Your task to perform on an android device: How big is the universe? Image 0: 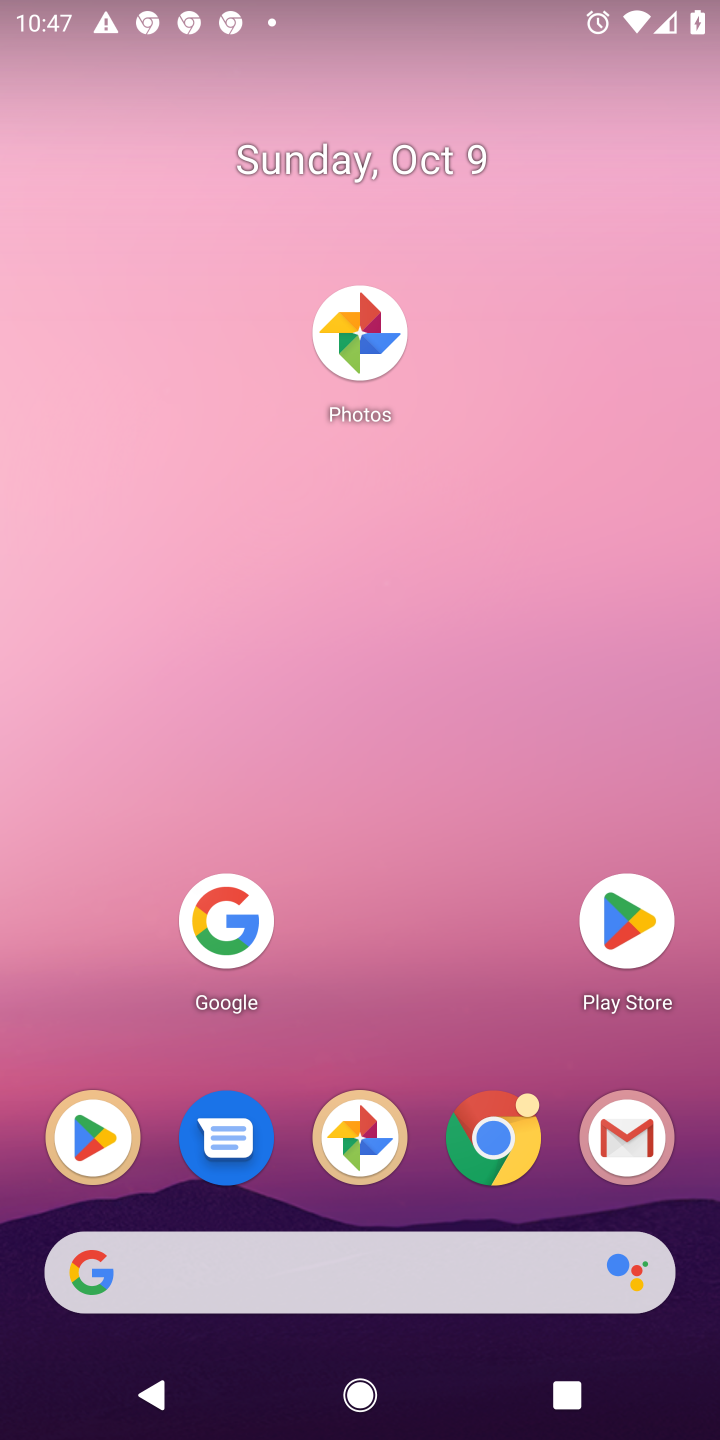
Step 0: click (244, 906)
Your task to perform on an android device: How big is the universe? Image 1: 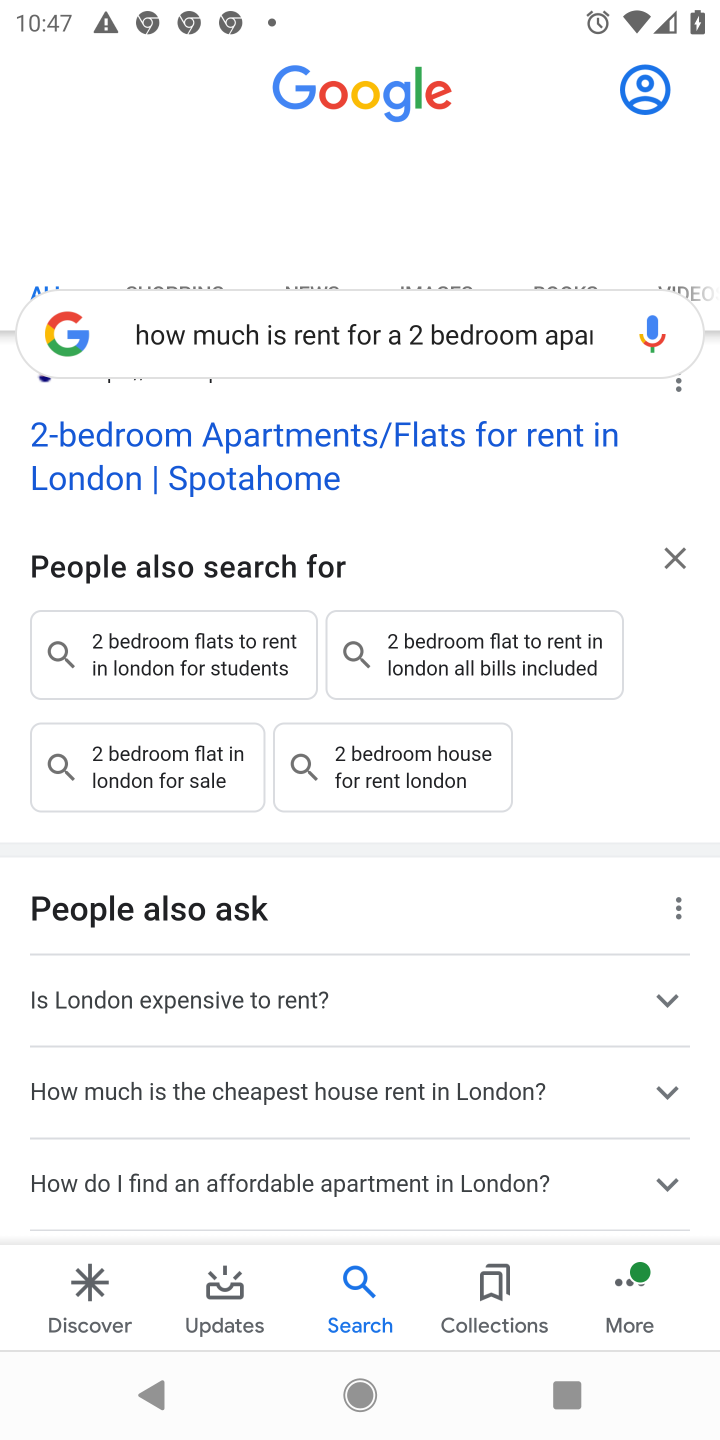
Step 1: click (399, 317)
Your task to perform on an android device: How big is the universe? Image 2: 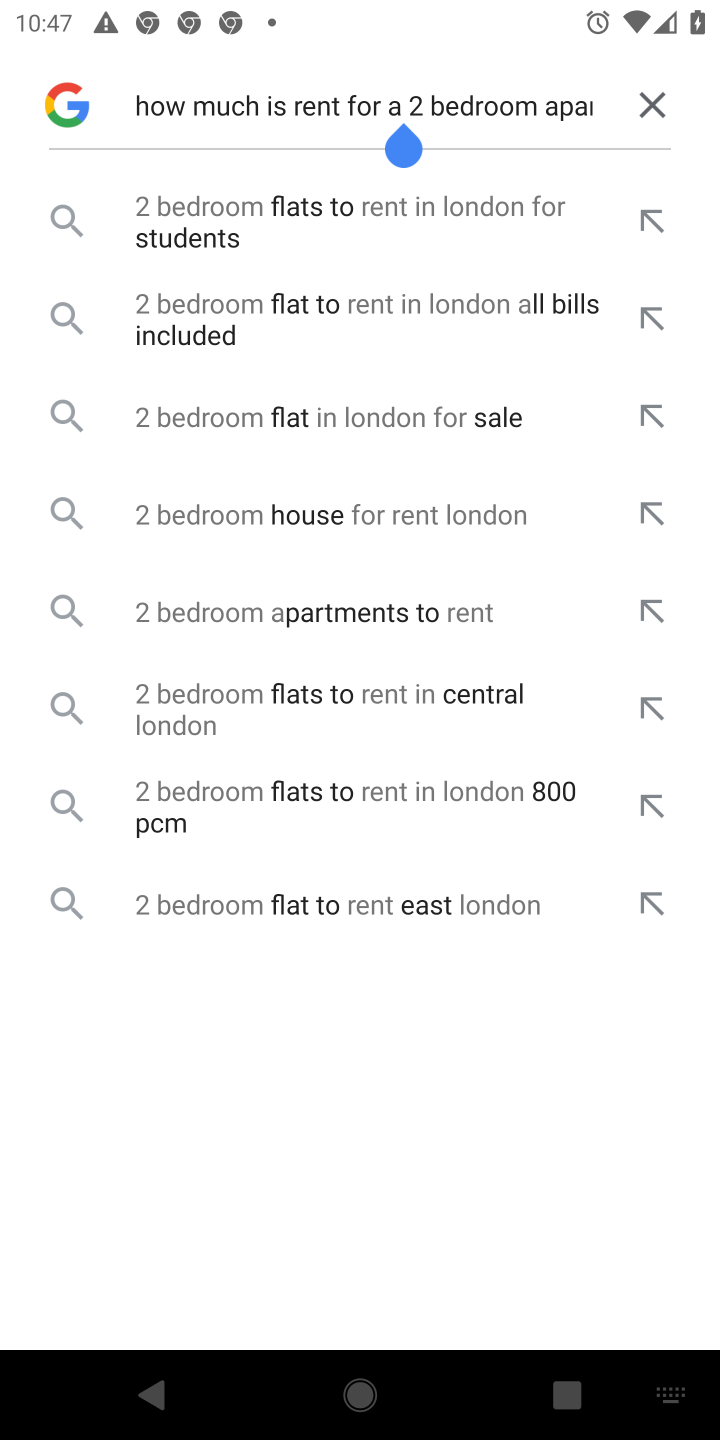
Step 2: click (644, 86)
Your task to perform on an android device: How big is the universe? Image 3: 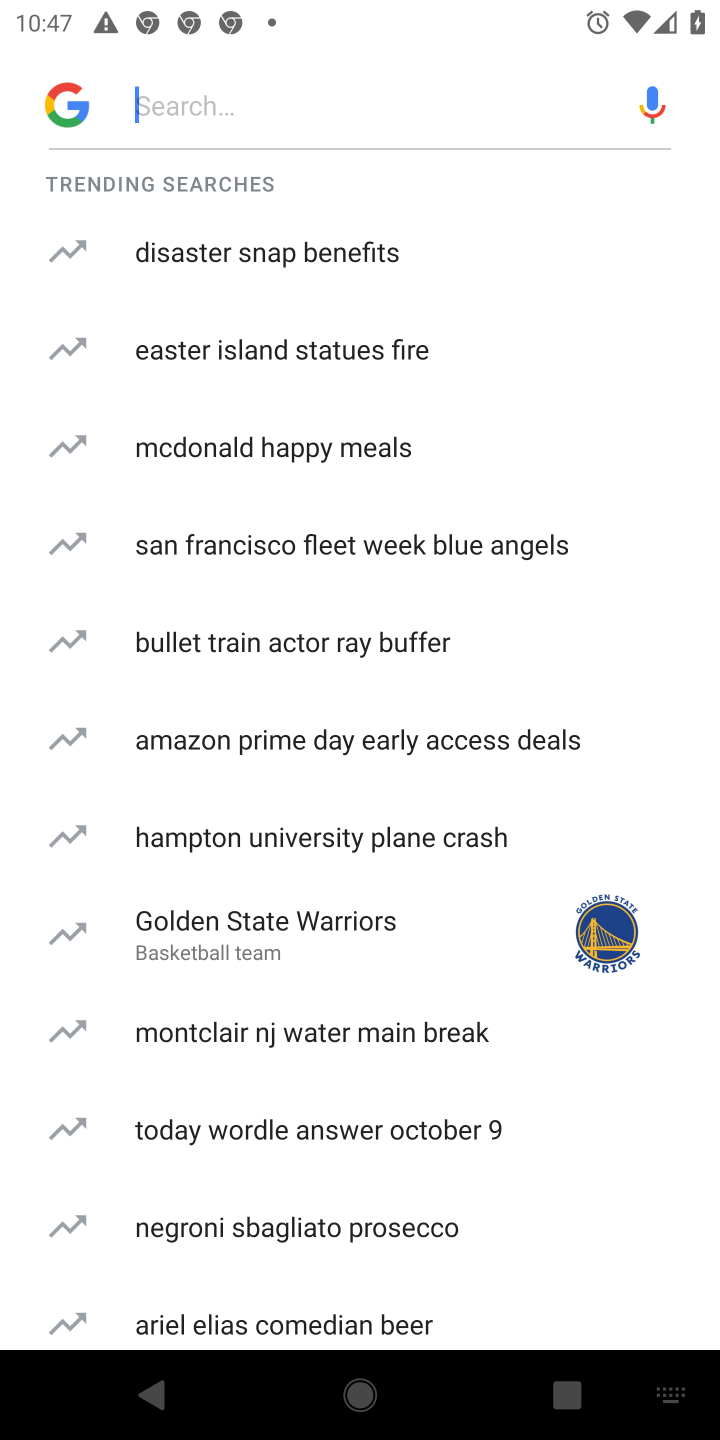
Step 3: click (426, 81)
Your task to perform on an android device: How big is the universe? Image 4: 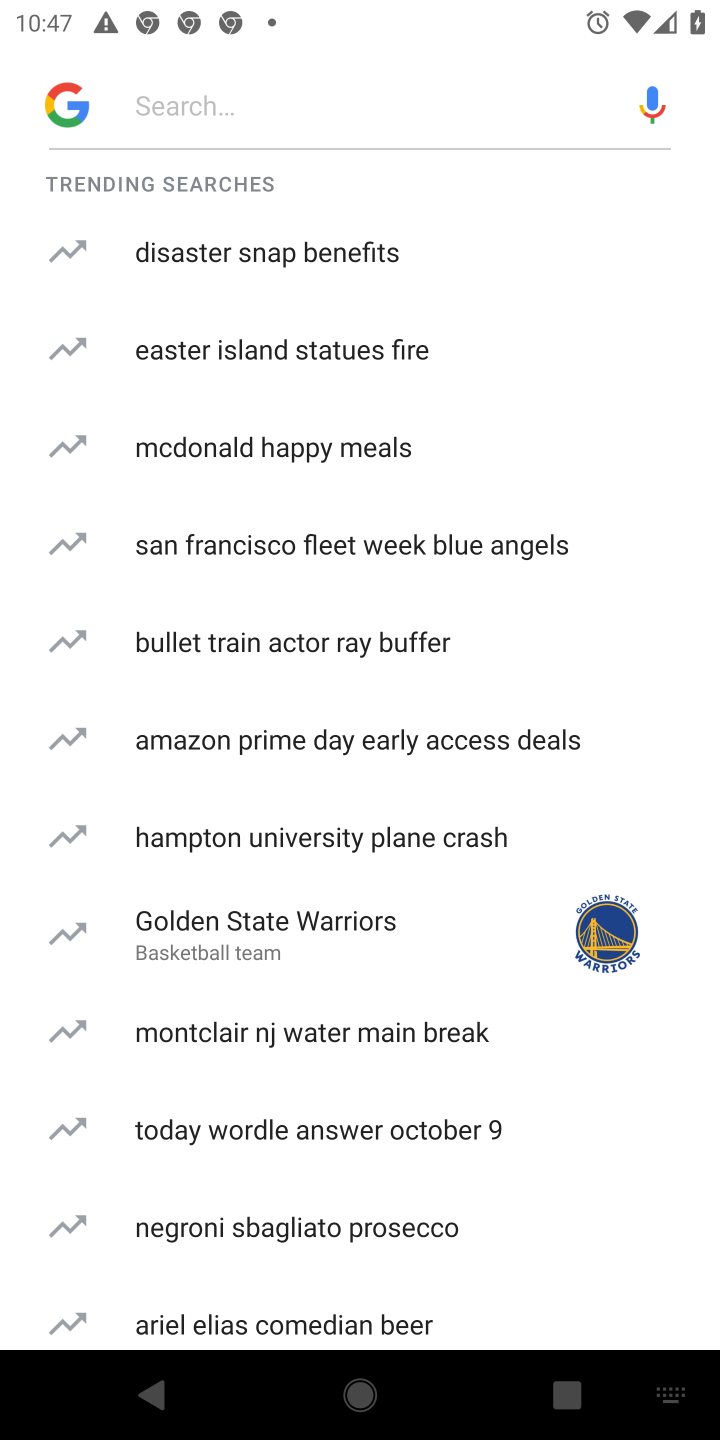
Step 4: type "How big is the universe? "
Your task to perform on an android device: How big is the universe? Image 5: 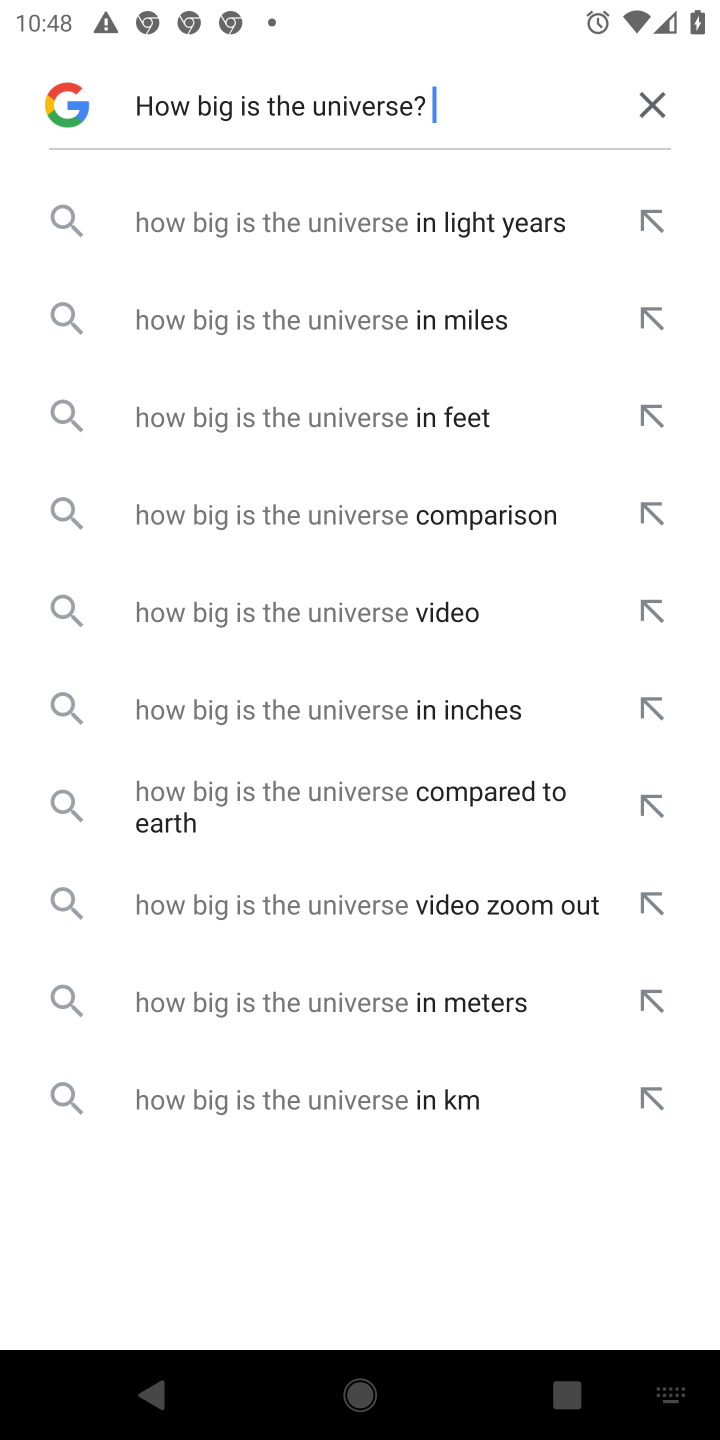
Step 5: click (419, 221)
Your task to perform on an android device: How big is the universe? Image 6: 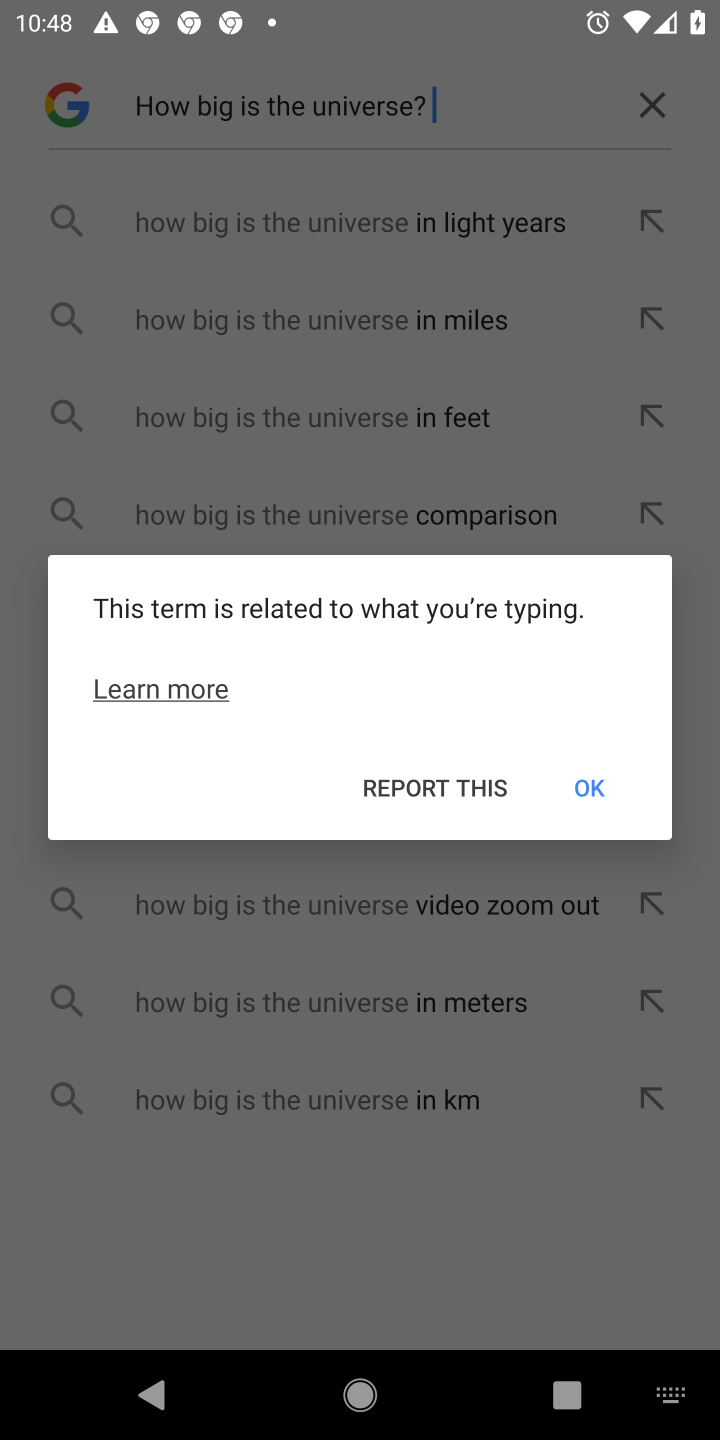
Step 6: click (562, 794)
Your task to perform on an android device: How big is the universe? Image 7: 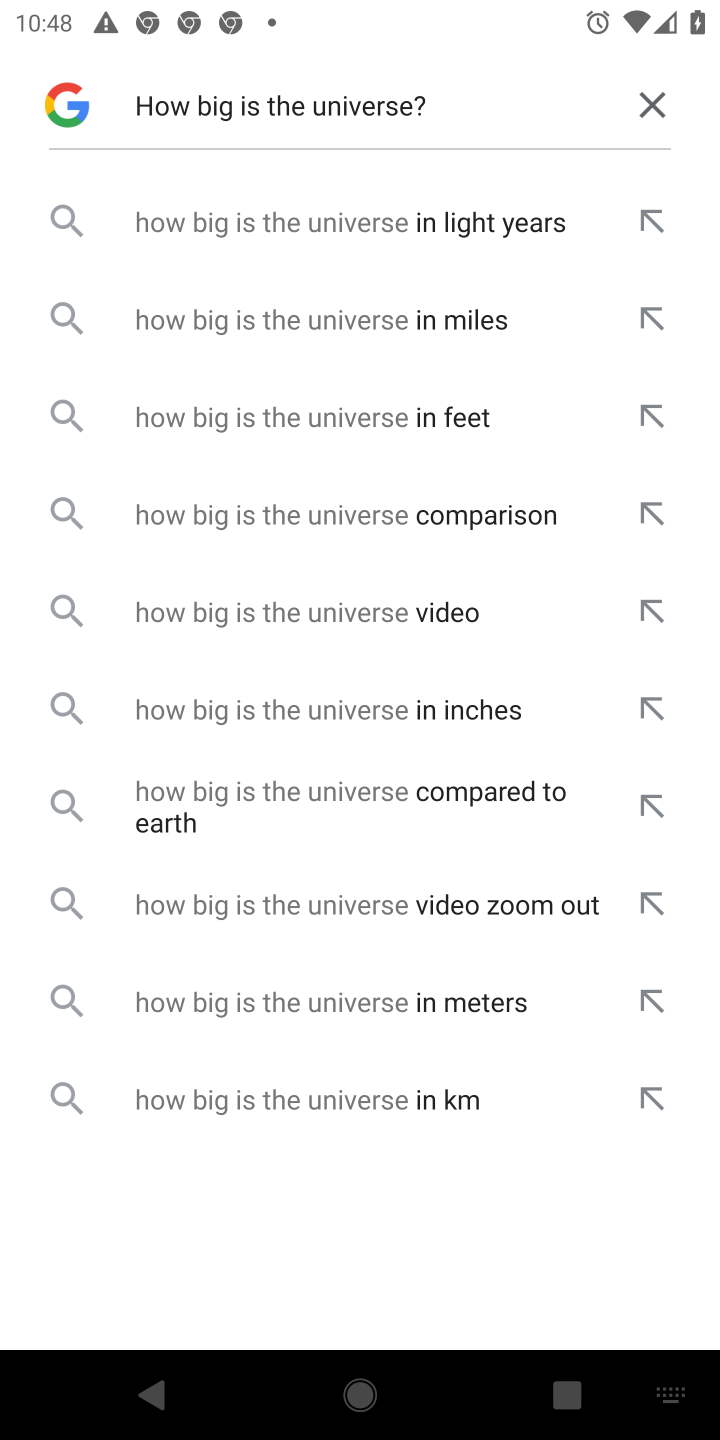
Step 7: click (342, 200)
Your task to perform on an android device: How big is the universe? Image 8: 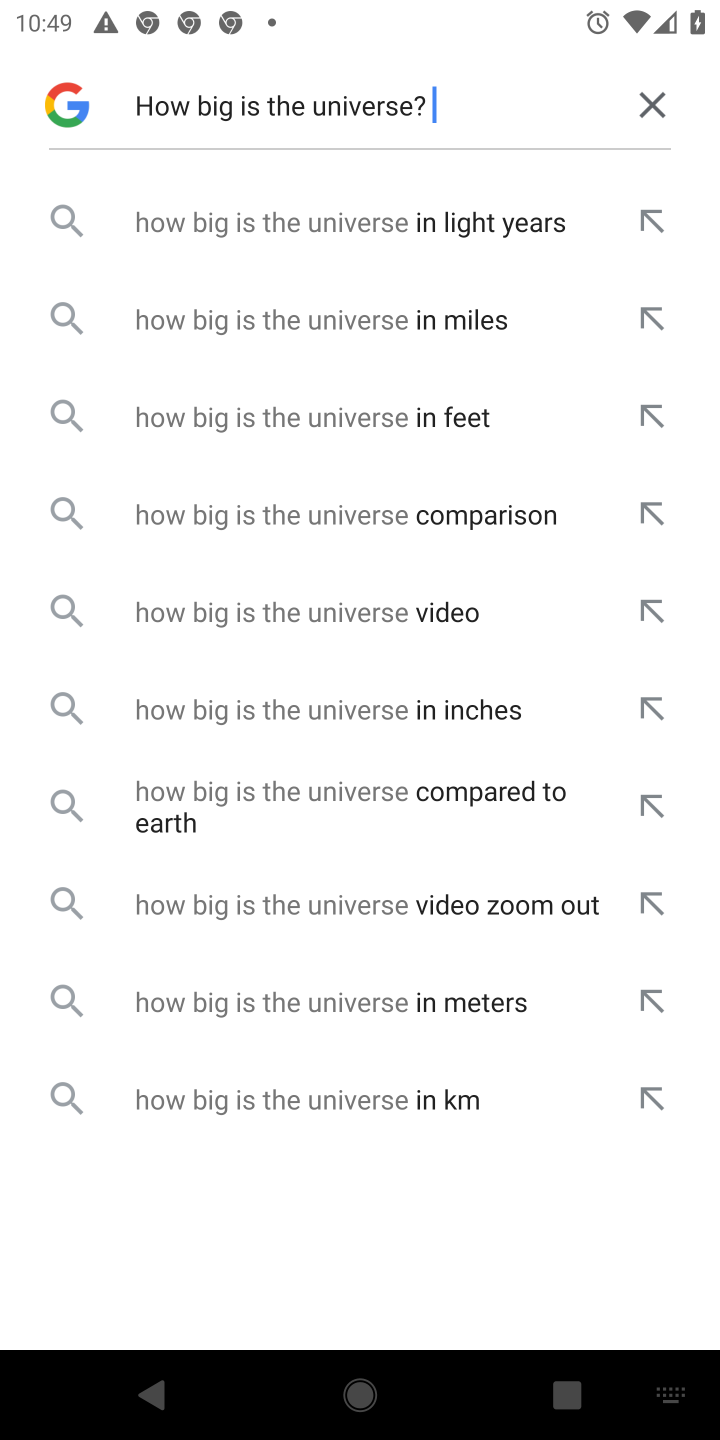
Step 8: click (310, 203)
Your task to perform on an android device: How big is the universe? Image 9: 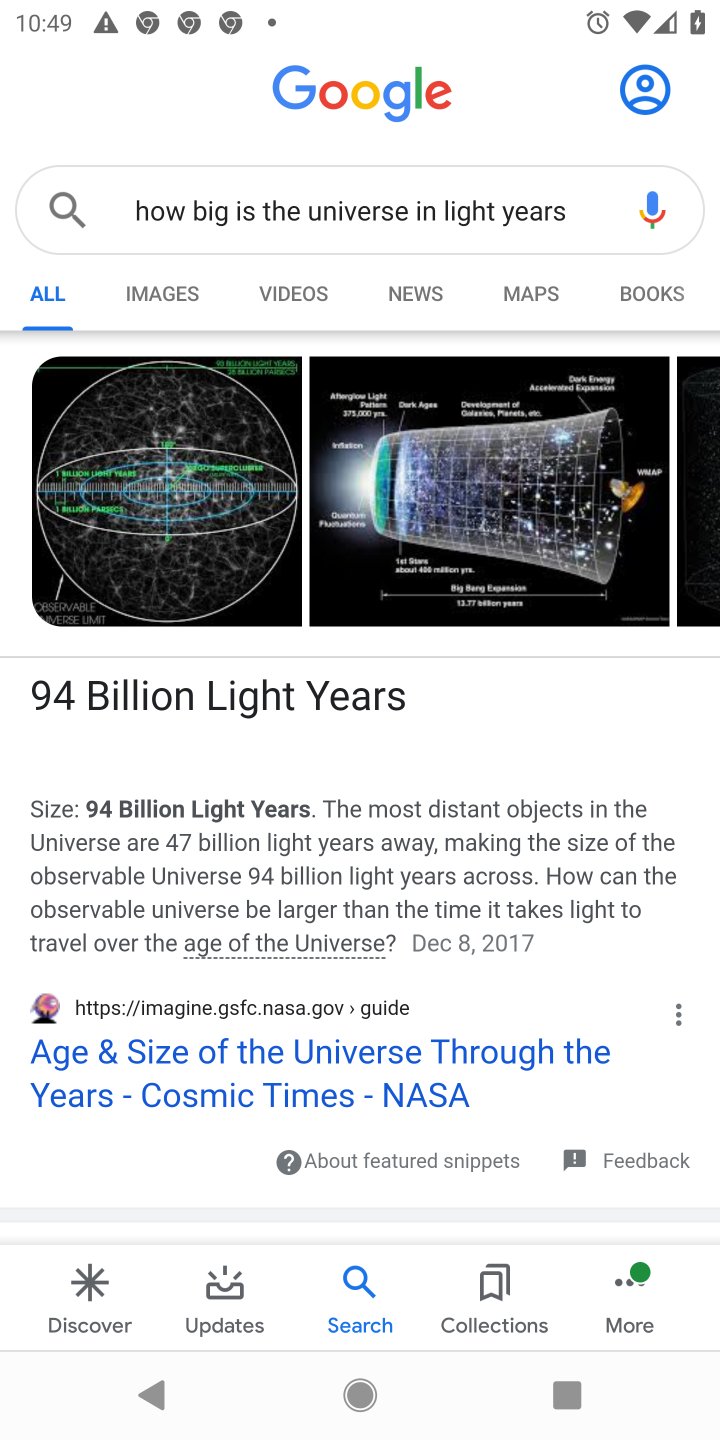
Step 9: click (310, 203)
Your task to perform on an android device: How big is the universe? Image 10: 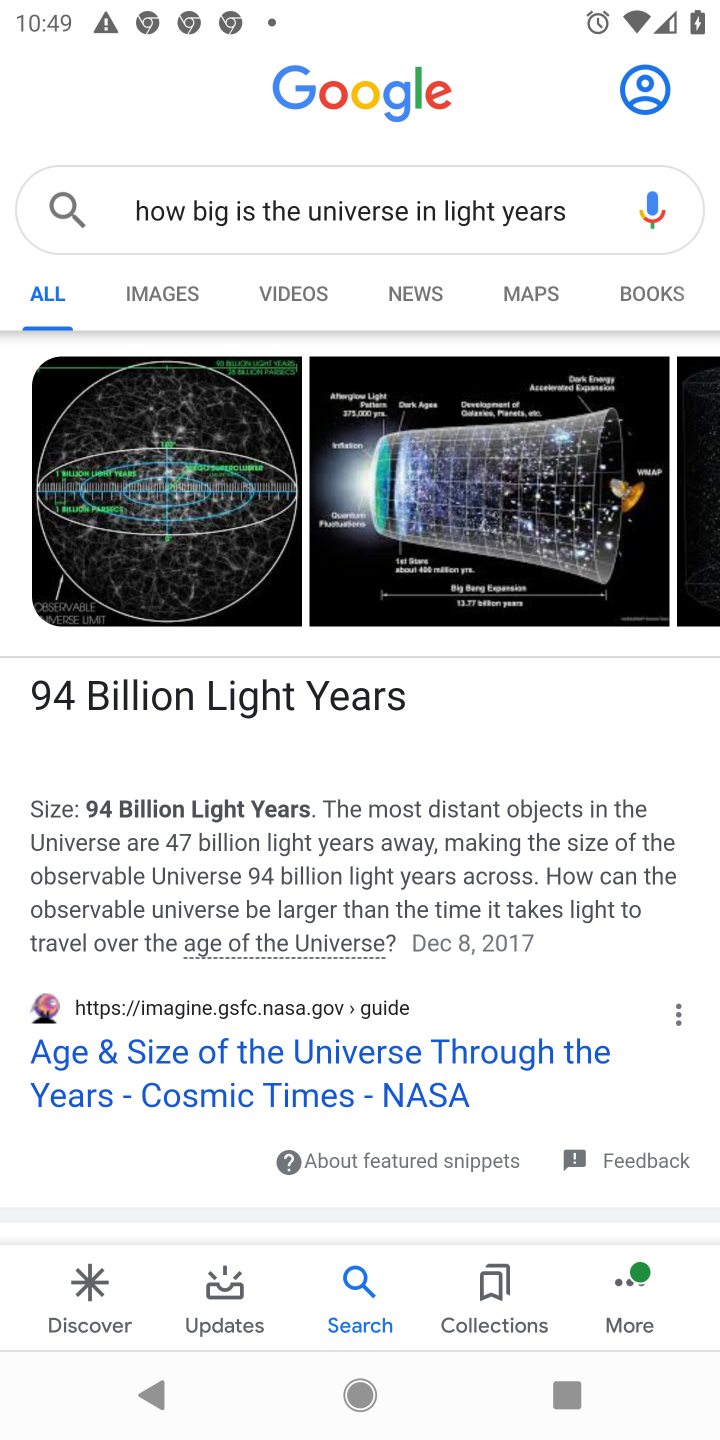
Step 10: click (310, 203)
Your task to perform on an android device: How big is the universe? Image 11: 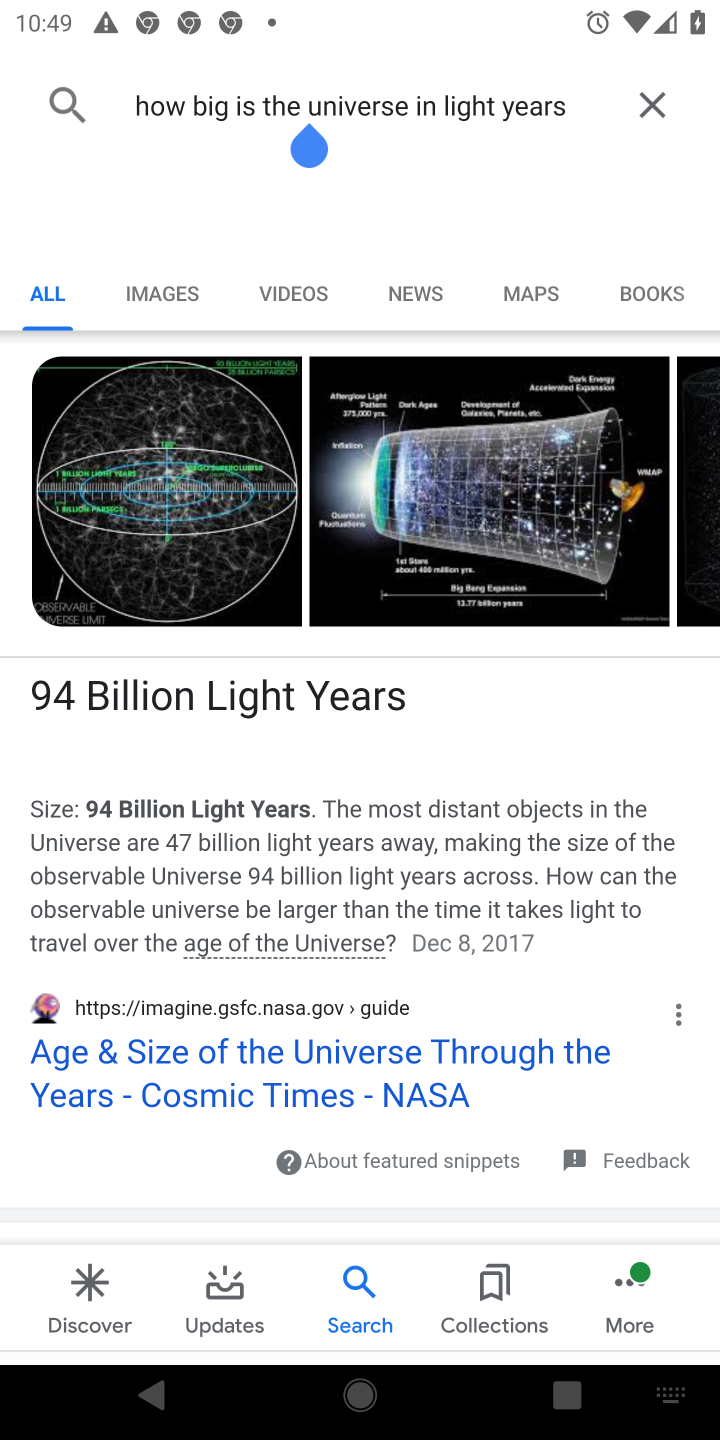
Step 11: click (310, 203)
Your task to perform on an android device: How big is the universe? Image 12: 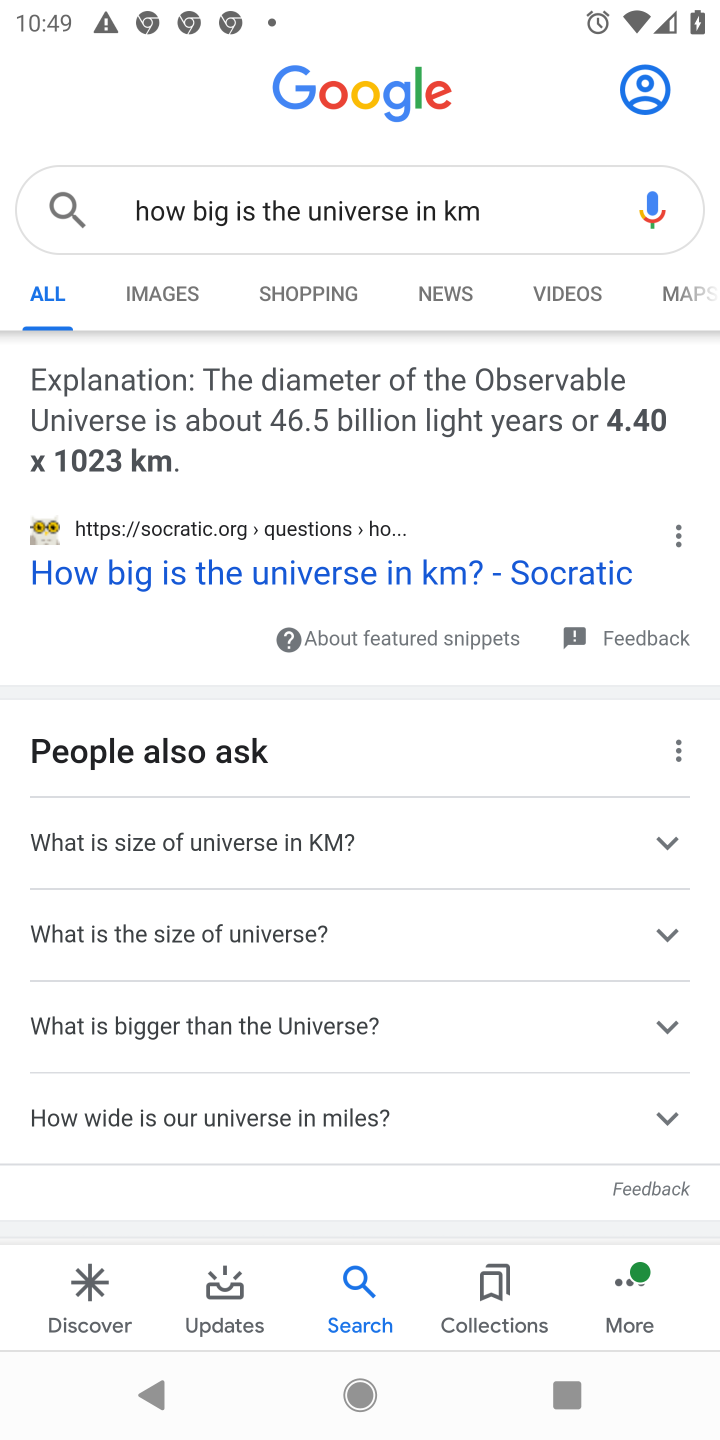
Step 12: task complete